Your task to perform on an android device: Is it going to rain today? Image 0: 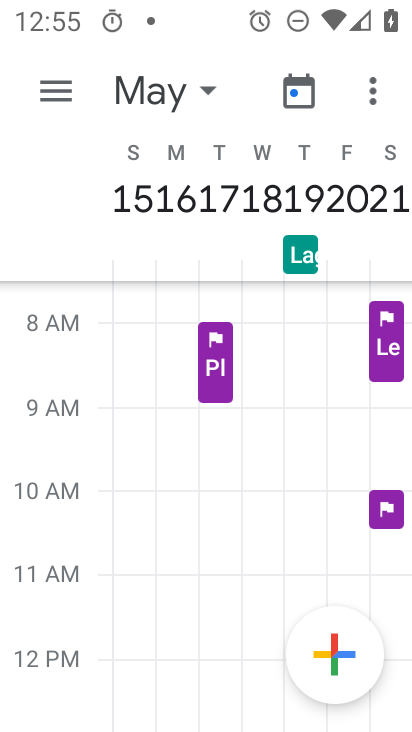
Step 0: press home button
Your task to perform on an android device: Is it going to rain today? Image 1: 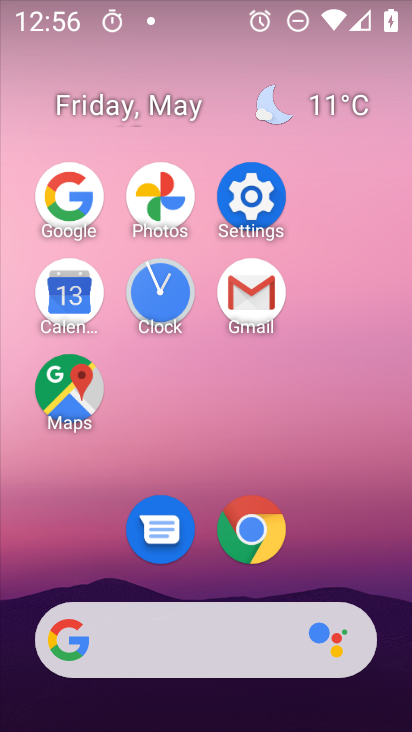
Step 1: click (85, 203)
Your task to perform on an android device: Is it going to rain today? Image 2: 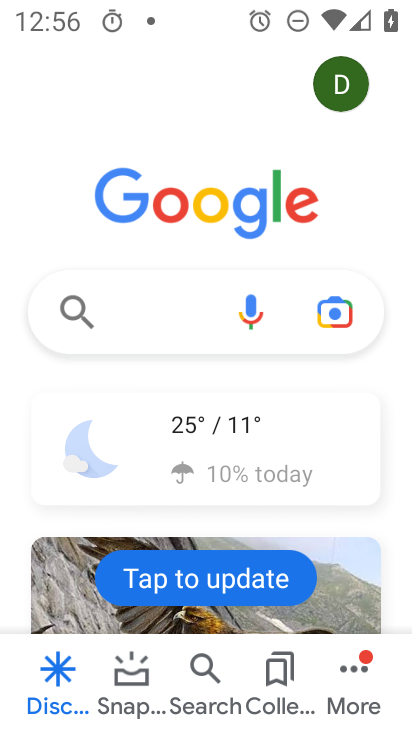
Step 2: click (186, 427)
Your task to perform on an android device: Is it going to rain today? Image 3: 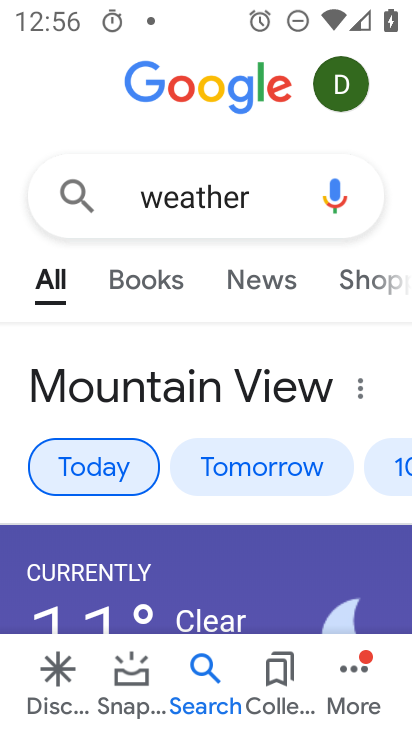
Step 3: task complete